Your task to perform on an android device: change the upload size in google photos Image 0: 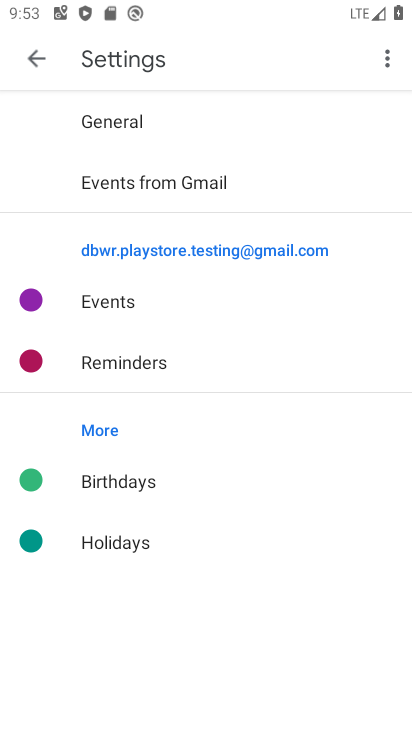
Step 0: press home button
Your task to perform on an android device: change the upload size in google photos Image 1: 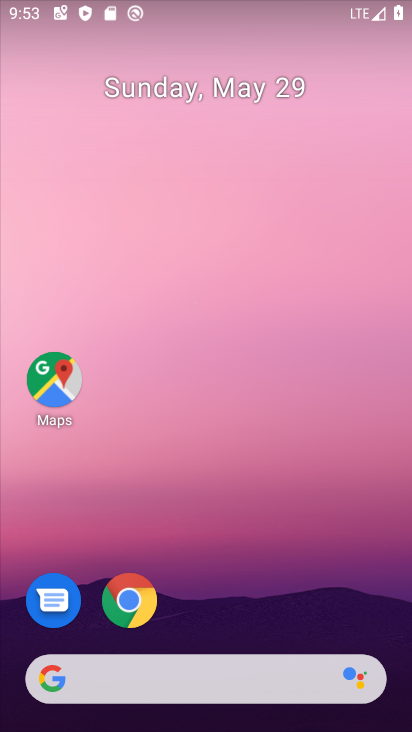
Step 1: drag from (279, 626) to (346, 106)
Your task to perform on an android device: change the upload size in google photos Image 2: 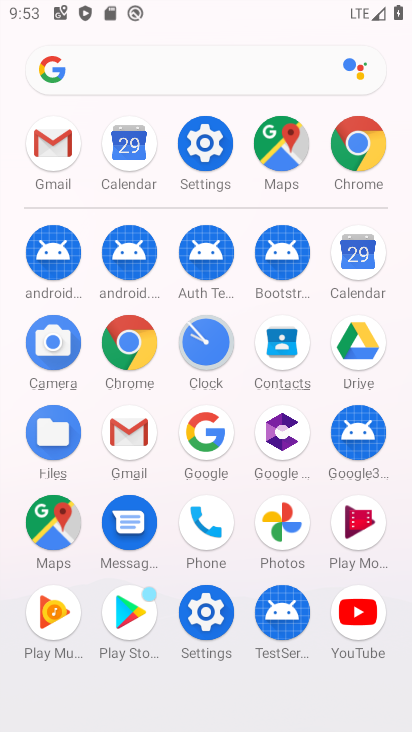
Step 2: click (281, 528)
Your task to perform on an android device: change the upload size in google photos Image 3: 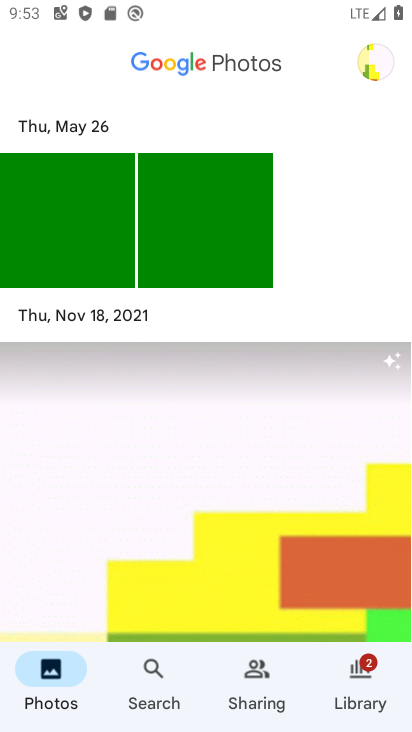
Step 3: click (360, 680)
Your task to perform on an android device: change the upload size in google photos Image 4: 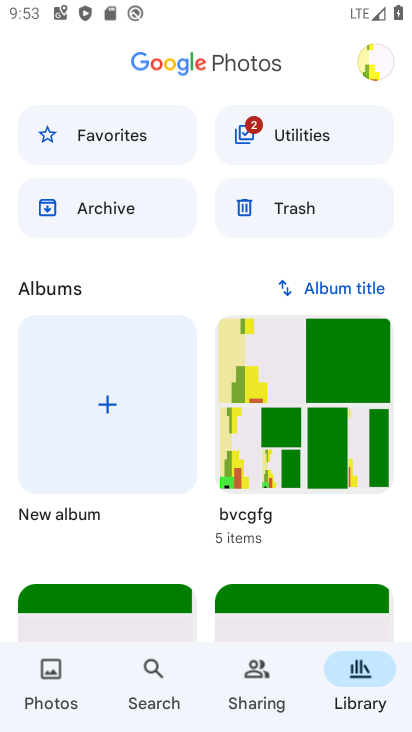
Step 4: click (375, 58)
Your task to perform on an android device: change the upload size in google photos Image 5: 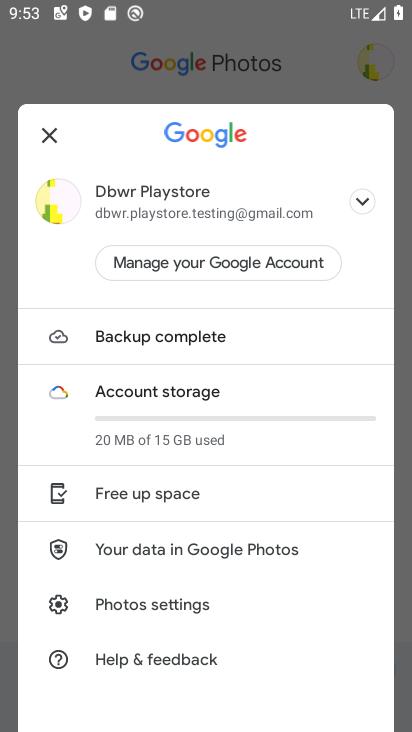
Step 5: click (196, 596)
Your task to perform on an android device: change the upload size in google photos Image 6: 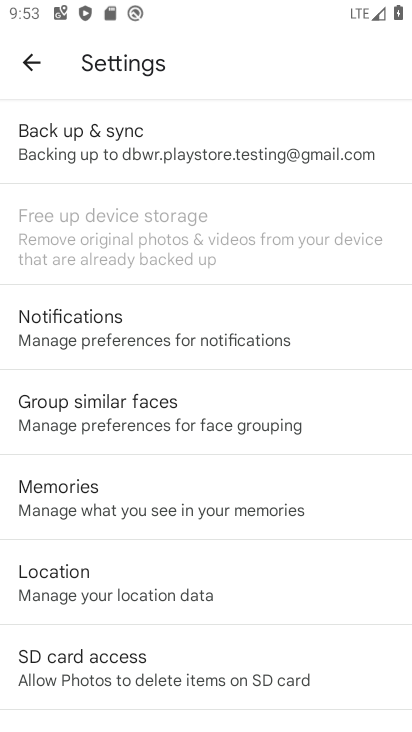
Step 6: click (81, 136)
Your task to perform on an android device: change the upload size in google photos Image 7: 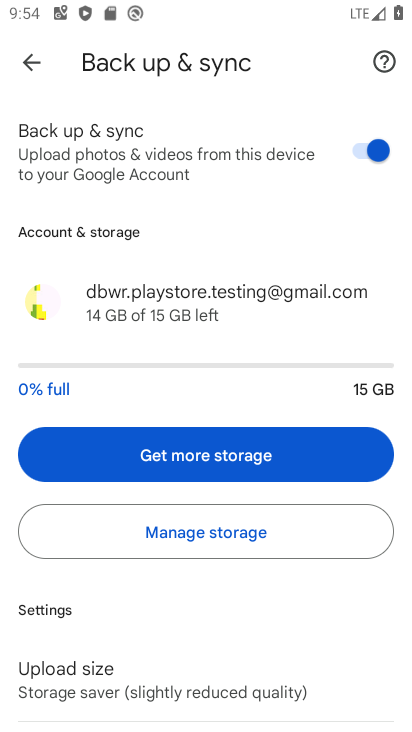
Step 7: click (78, 682)
Your task to perform on an android device: change the upload size in google photos Image 8: 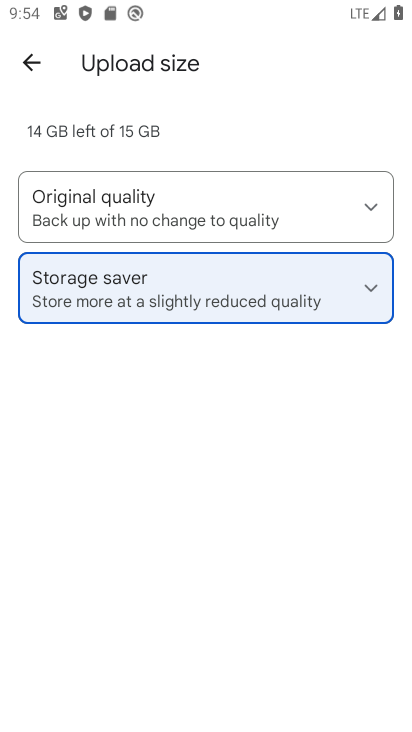
Step 8: click (158, 205)
Your task to perform on an android device: change the upload size in google photos Image 9: 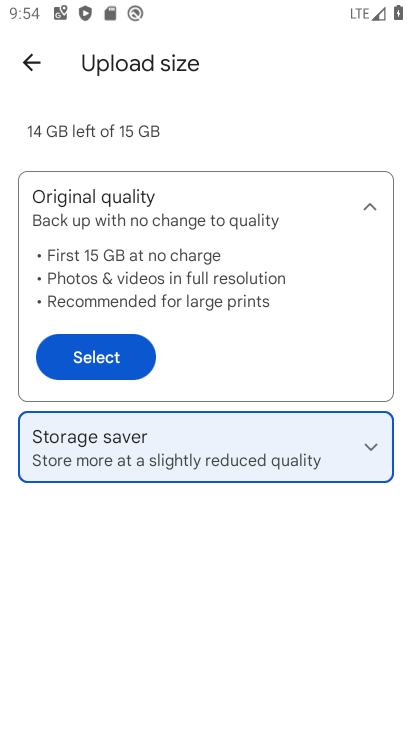
Step 9: click (102, 368)
Your task to perform on an android device: change the upload size in google photos Image 10: 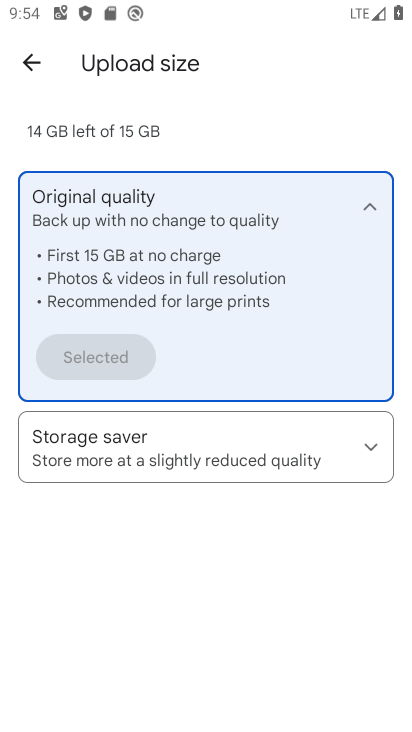
Step 10: task complete